Your task to perform on an android device: Show me the alarms in the clock app Image 0: 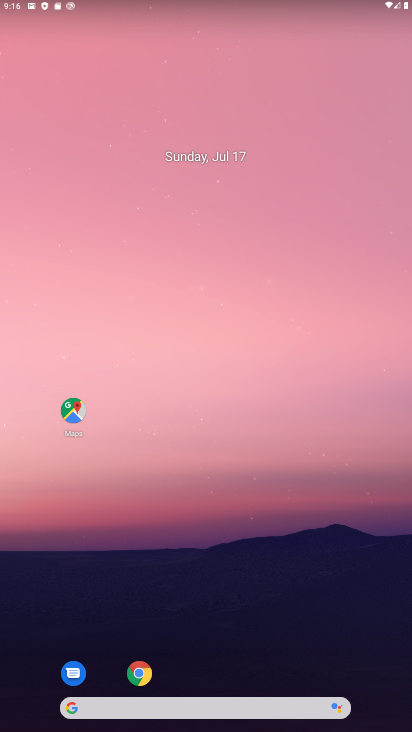
Step 0: press home button
Your task to perform on an android device: Show me the alarms in the clock app Image 1: 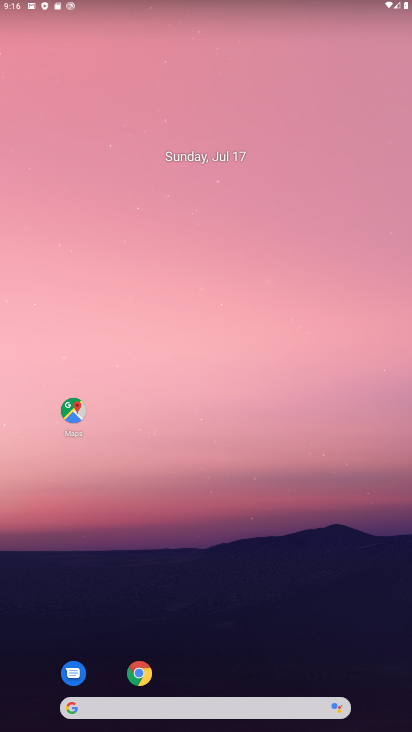
Step 1: drag from (246, 578) to (203, 60)
Your task to perform on an android device: Show me the alarms in the clock app Image 2: 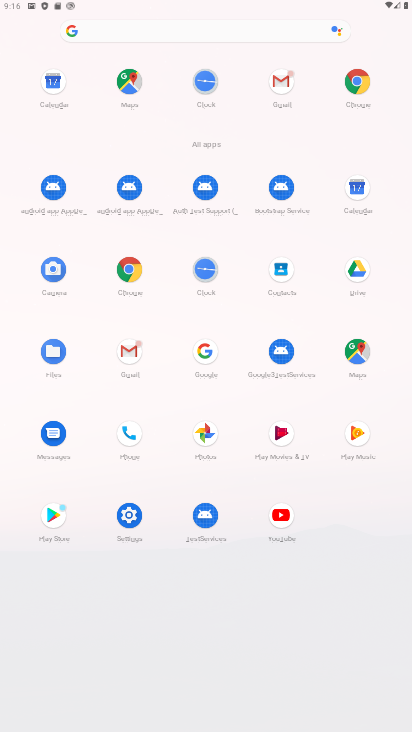
Step 2: click (200, 82)
Your task to perform on an android device: Show me the alarms in the clock app Image 3: 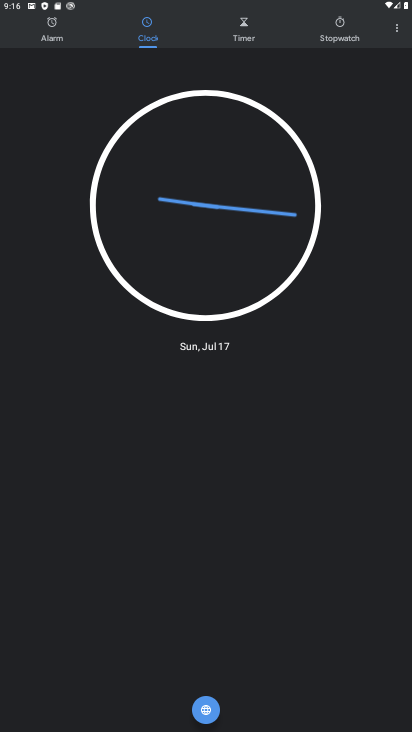
Step 3: click (55, 32)
Your task to perform on an android device: Show me the alarms in the clock app Image 4: 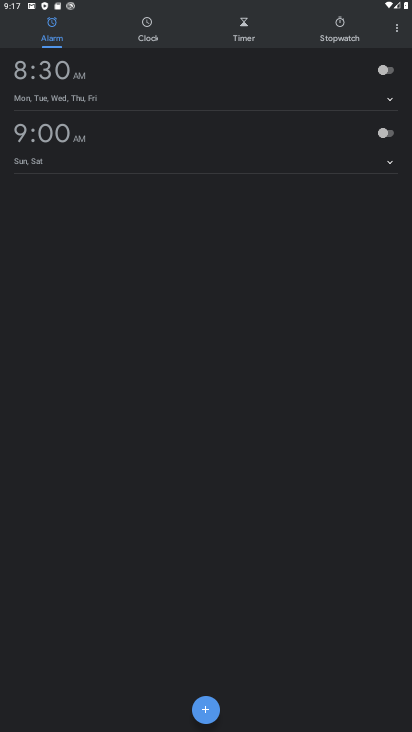
Step 4: task complete